Your task to perform on an android device: turn pop-ups on in chrome Image 0: 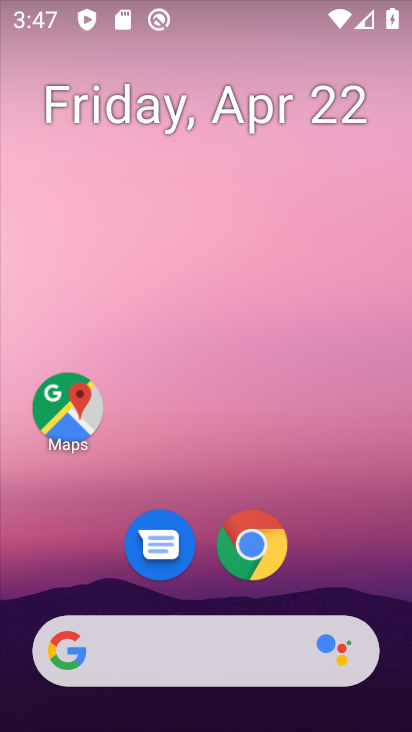
Step 0: click (277, 565)
Your task to perform on an android device: turn pop-ups on in chrome Image 1: 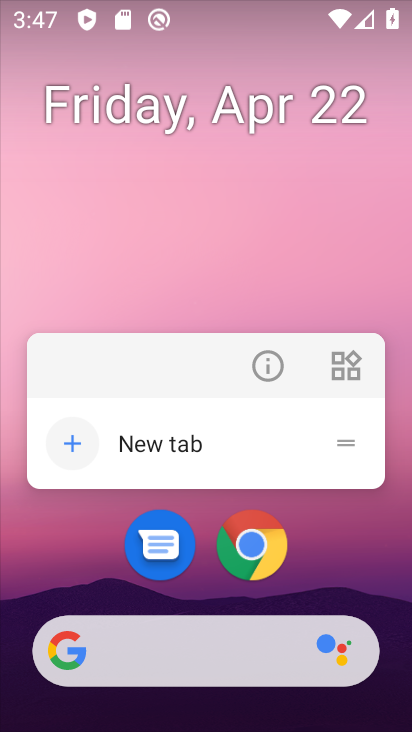
Step 1: click (262, 382)
Your task to perform on an android device: turn pop-ups on in chrome Image 2: 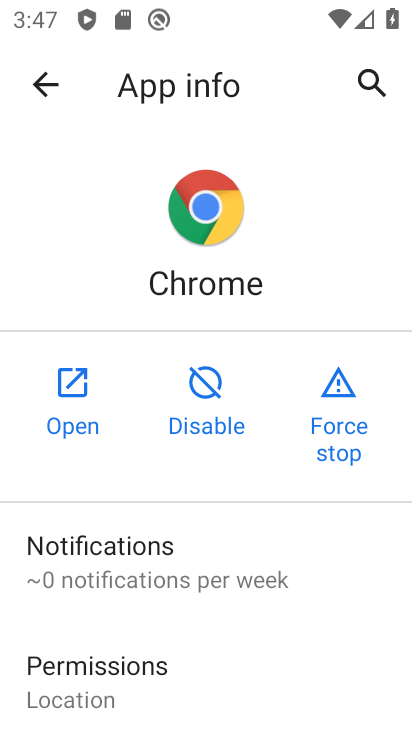
Step 2: click (83, 416)
Your task to perform on an android device: turn pop-ups on in chrome Image 3: 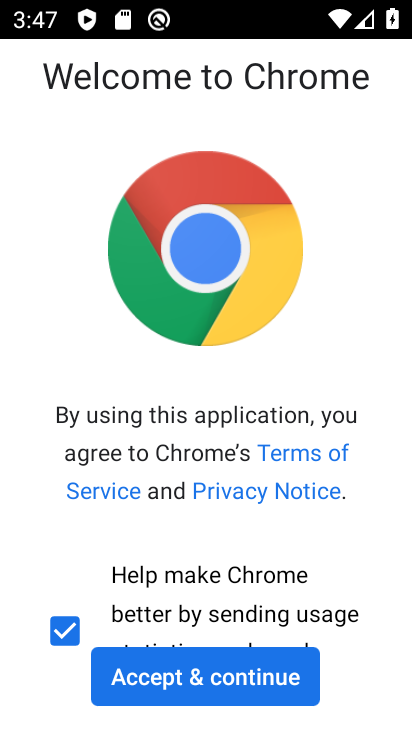
Step 3: click (239, 662)
Your task to perform on an android device: turn pop-ups on in chrome Image 4: 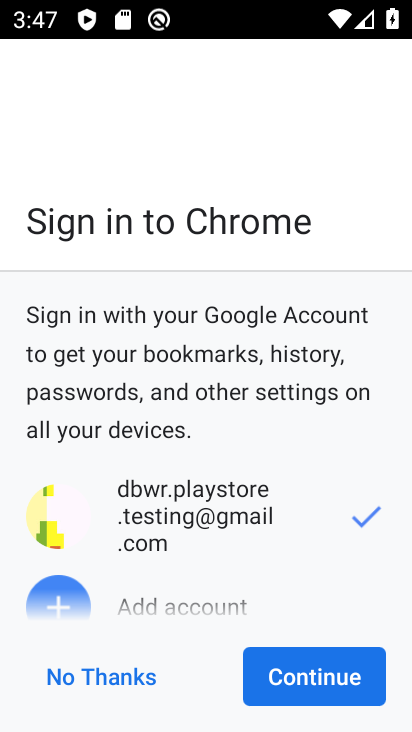
Step 4: click (317, 690)
Your task to perform on an android device: turn pop-ups on in chrome Image 5: 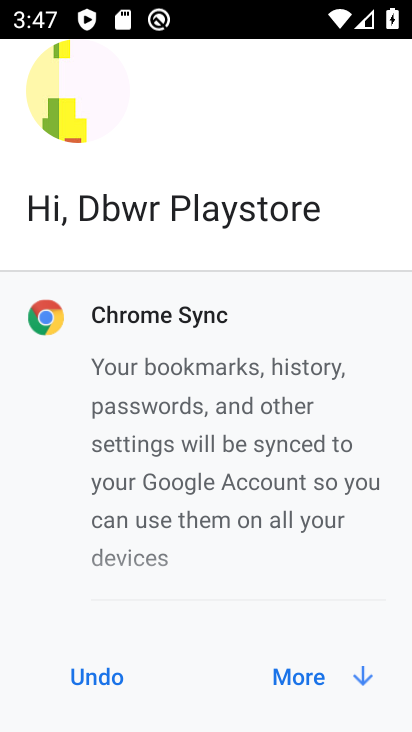
Step 5: click (317, 688)
Your task to perform on an android device: turn pop-ups on in chrome Image 6: 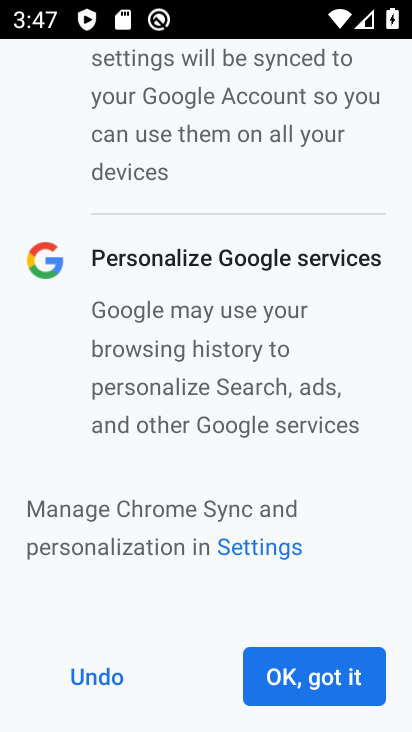
Step 6: click (306, 678)
Your task to perform on an android device: turn pop-ups on in chrome Image 7: 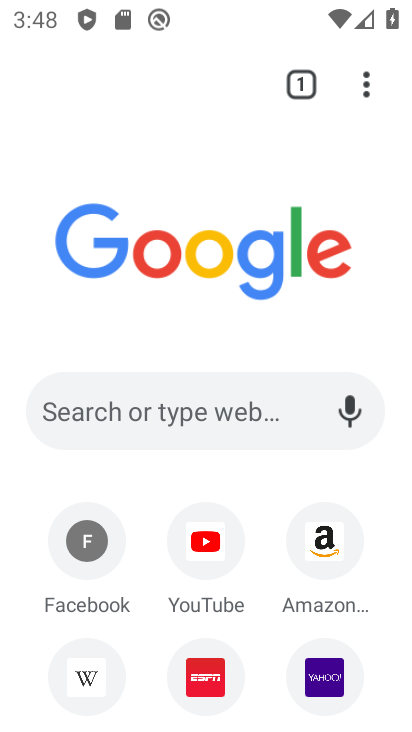
Step 7: click (362, 86)
Your task to perform on an android device: turn pop-ups on in chrome Image 8: 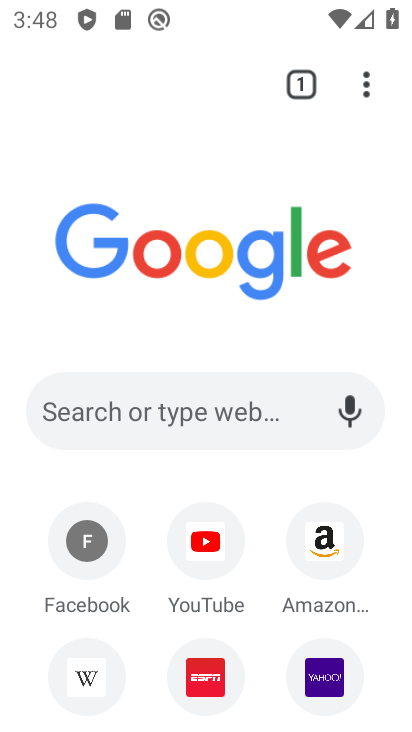
Step 8: click (361, 77)
Your task to perform on an android device: turn pop-ups on in chrome Image 9: 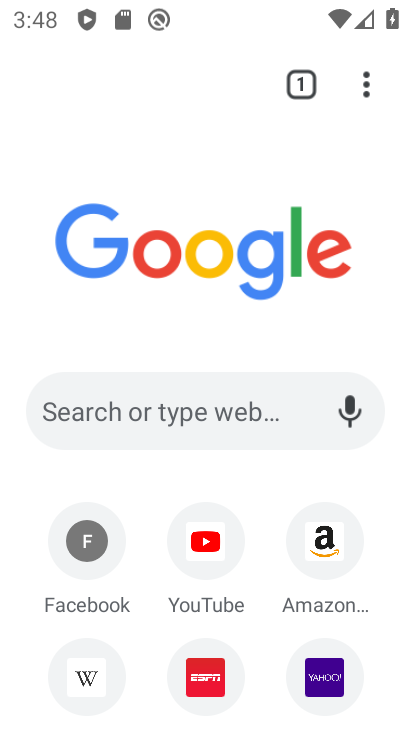
Step 9: click (369, 95)
Your task to perform on an android device: turn pop-ups on in chrome Image 10: 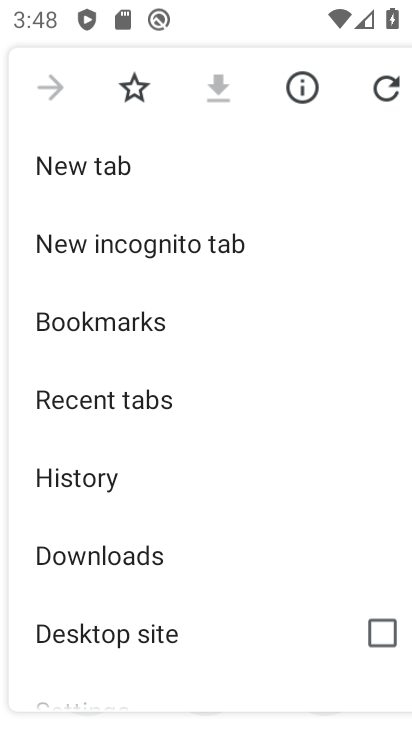
Step 10: drag from (244, 562) to (236, 212)
Your task to perform on an android device: turn pop-ups on in chrome Image 11: 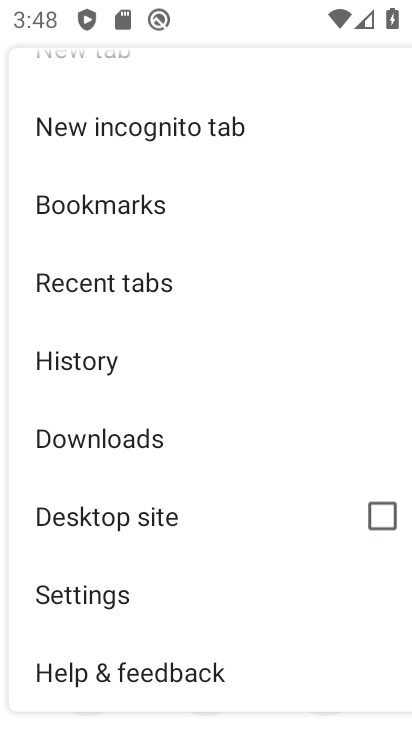
Step 11: click (146, 604)
Your task to perform on an android device: turn pop-ups on in chrome Image 12: 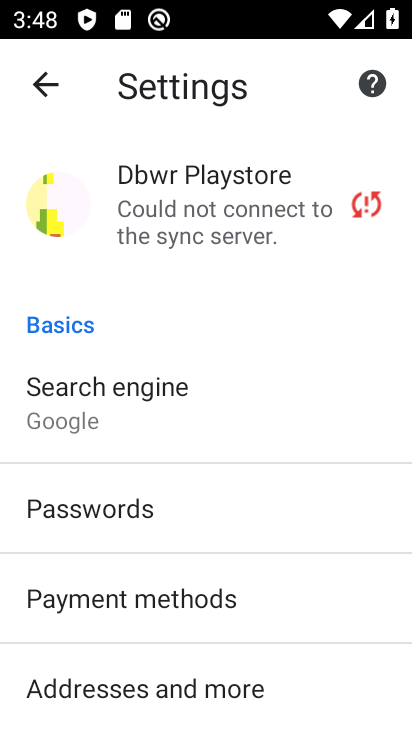
Step 12: drag from (178, 672) to (223, 296)
Your task to perform on an android device: turn pop-ups on in chrome Image 13: 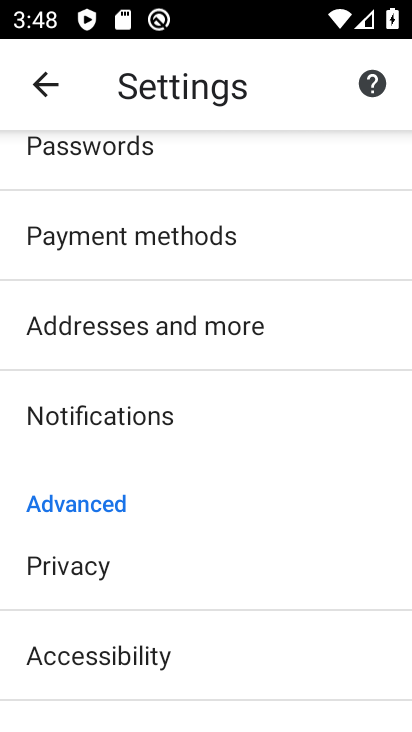
Step 13: drag from (183, 618) to (241, 333)
Your task to perform on an android device: turn pop-ups on in chrome Image 14: 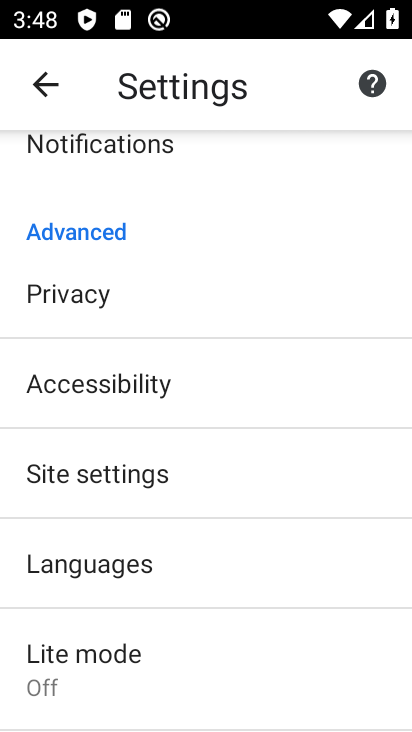
Step 14: click (176, 471)
Your task to perform on an android device: turn pop-ups on in chrome Image 15: 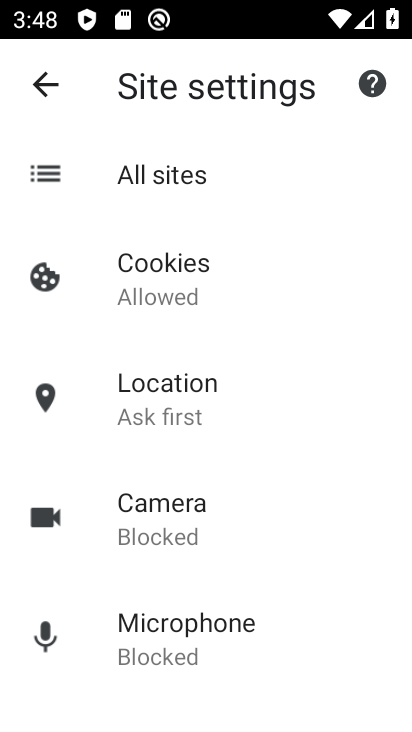
Step 15: drag from (249, 548) to (246, 169)
Your task to perform on an android device: turn pop-ups on in chrome Image 16: 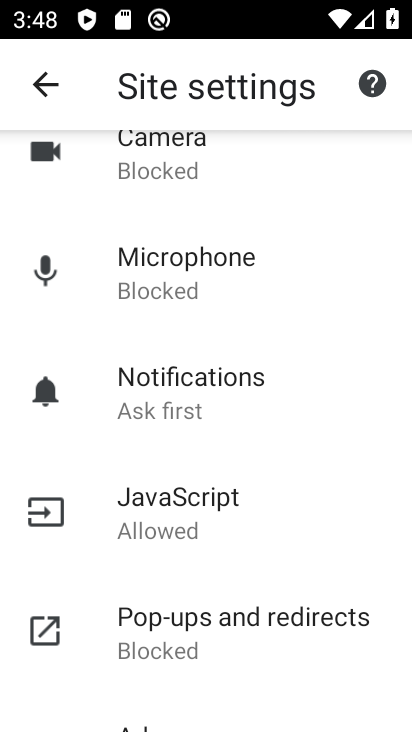
Step 16: click (220, 644)
Your task to perform on an android device: turn pop-ups on in chrome Image 17: 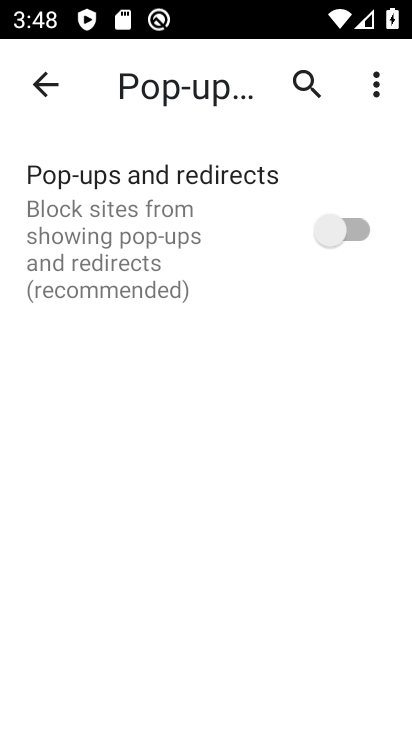
Step 17: click (343, 207)
Your task to perform on an android device: turn pop-ups on in chrome Image 18: 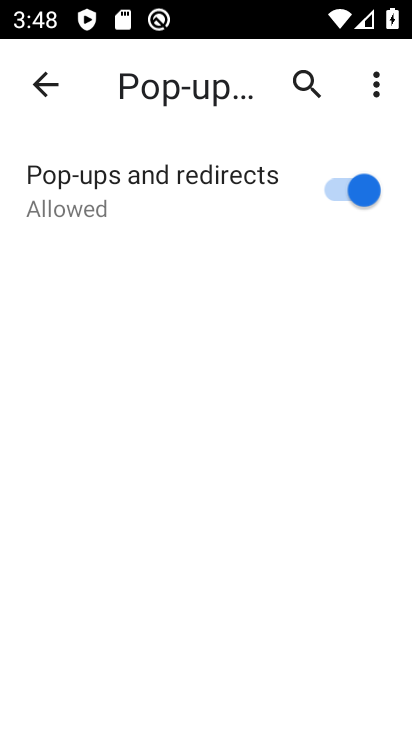
Step 18: task complete